Your task to perform on an android device: turn on the 24-hour format for clock Image 0: 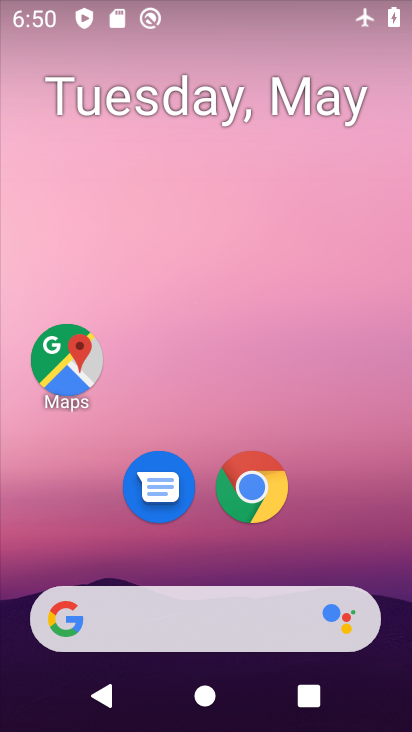
Step 0: drag from (327, 546) to (259, 146)
Your task to perform on an android device: turn on the 24-hour format for clock Image 1: 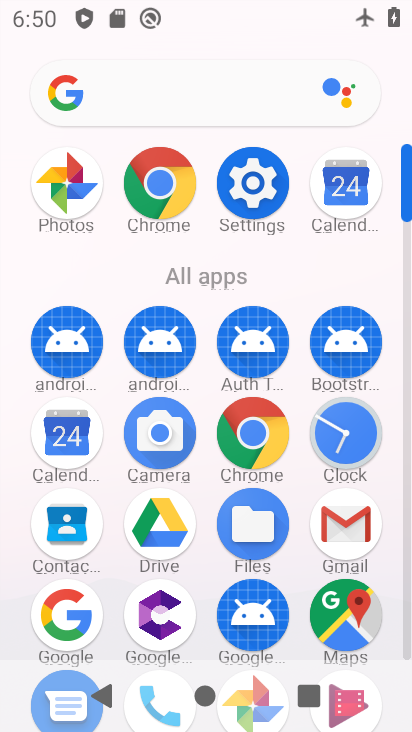
Step 1: click (354, 444)
Your task to perform on an android device: turn on the 24-hour format for clock Image 2: 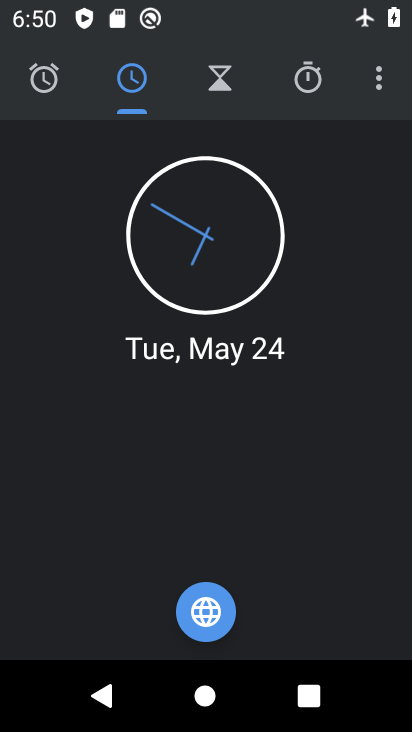
Step 2: click (379, 77)
Your task to perform on an android device: turn on the 24-hour format for clock Image 3: 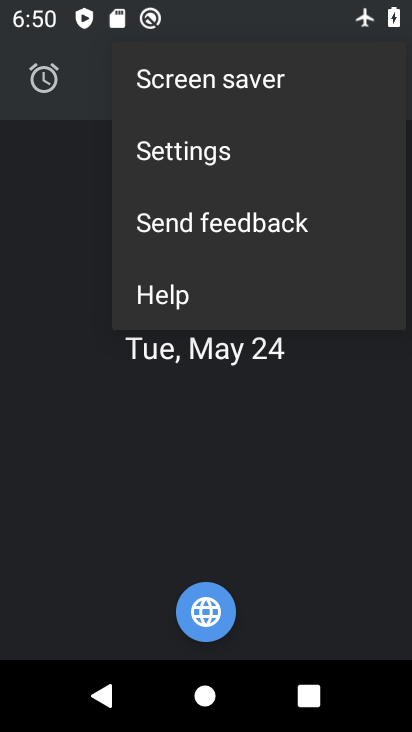
Step 3: click (203, 151)
Your task to perform on an android device: turn on the 24-hour format for clock Image 4: 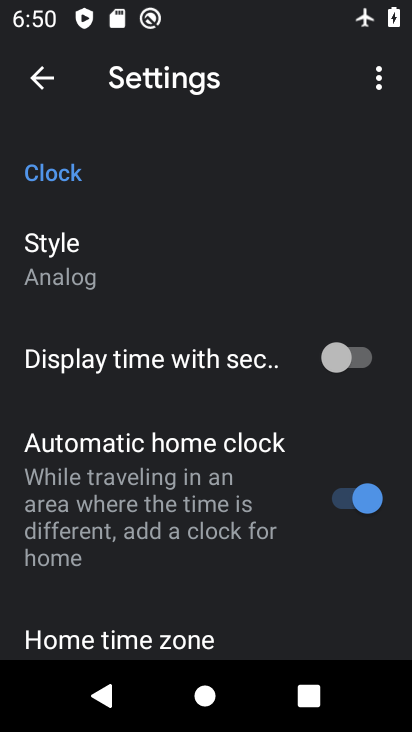
Step 4: drag from (252, 601) to (205, 327)
Your task to perform on an android device: turn on the 24-hour format for clock Image 5: 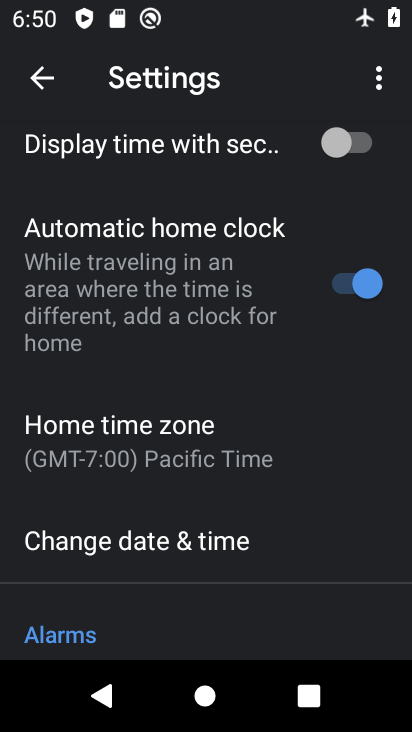
Step 5: click (183, 536)
Your task to perform on an android device: turn on the 24-hour format for clock Image 6: 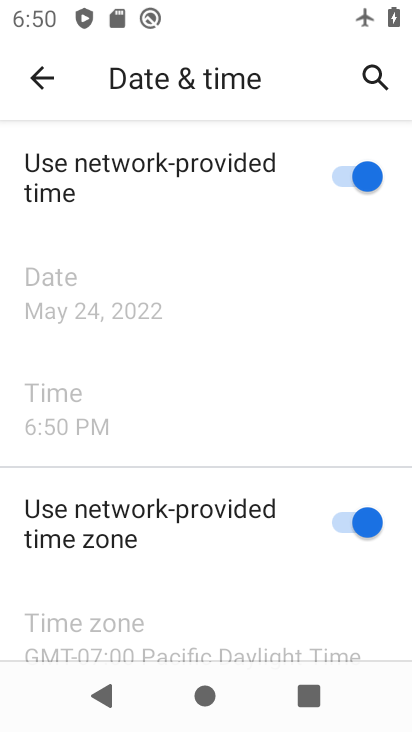
Step 6: drag from (271, 557) to (217, 254)
Your task to perform on an android device: turn on the 24-hour format for clock Image 7: 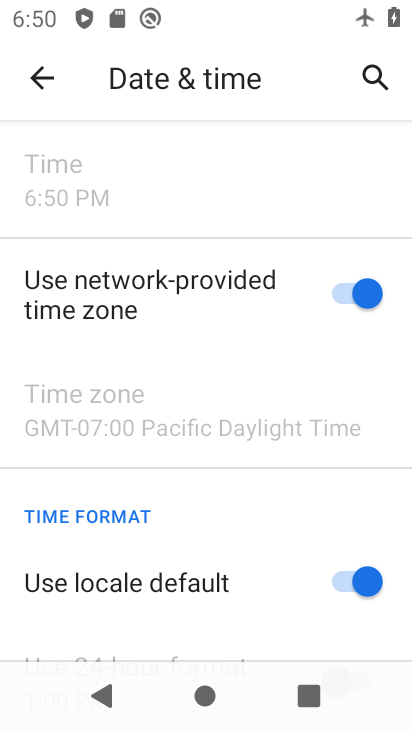
Step 7: drag from (238, 533) to (221, 253)
Your task to perform on an android device: turn on the 24-hour format for clock Image 8: 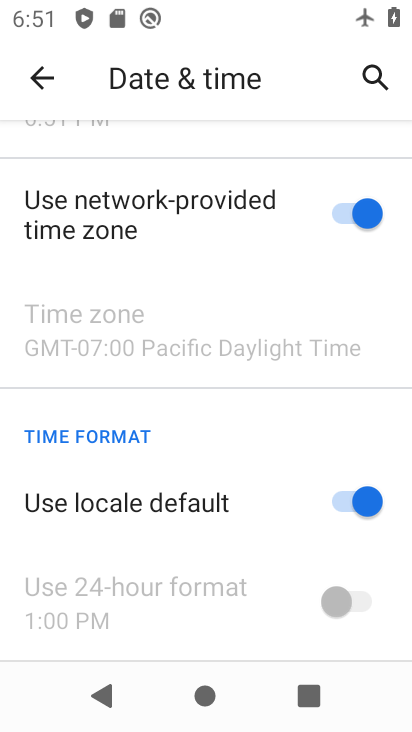
Step 8: click (375, 499)
Your task to perform on an android device: turn on the 24-hour format for clock Image 9: 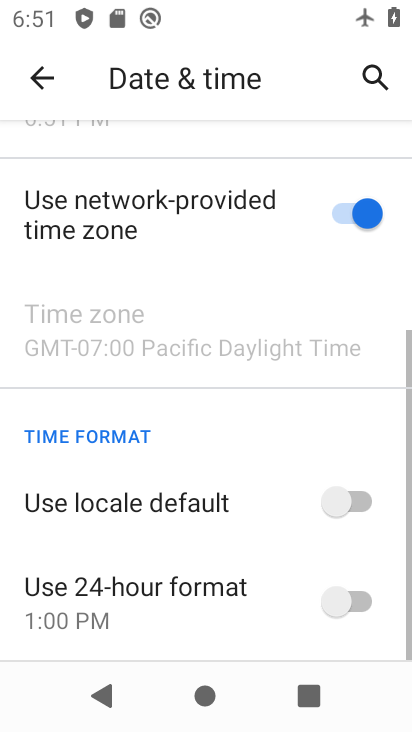
Step 9: click (333, 610)
Your task to perform on an android device: turn on the 24-hour format for clock Image 10: 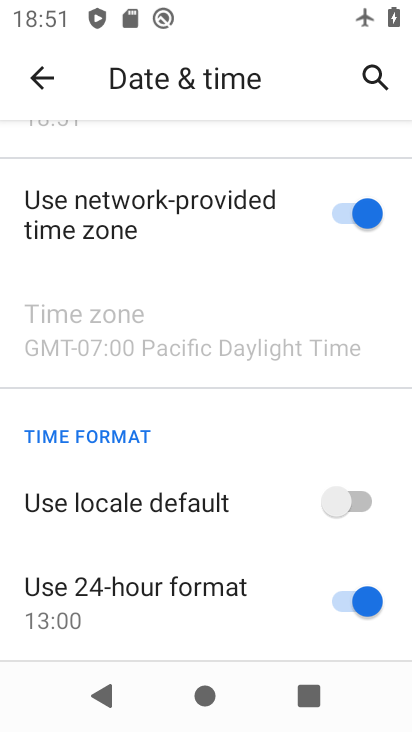
Step 10: task complete